Your task to perform on an android device: What's the weather? Image 0: 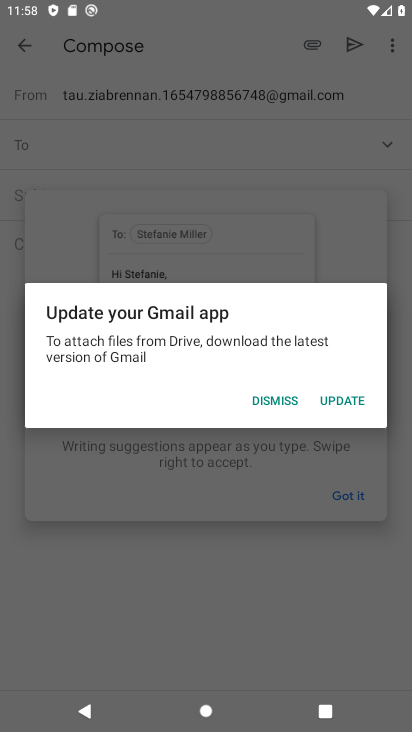
Step 0: press home button
Your task to perform on an android device: What's the weather? Image 1: 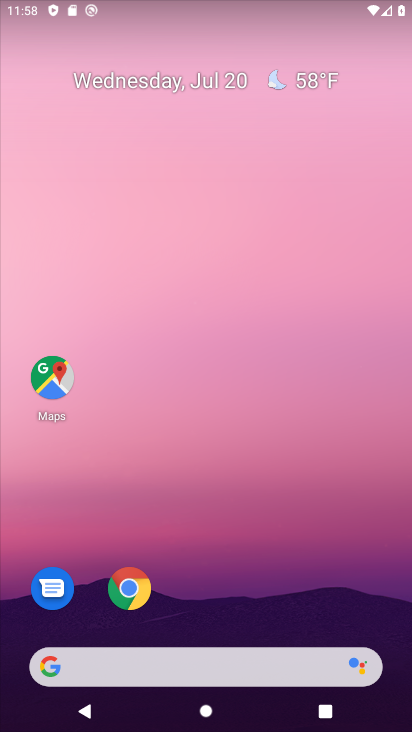
Step 1: click (138, 663)
Your task to perform on an android device: What's the weather? Image 2: 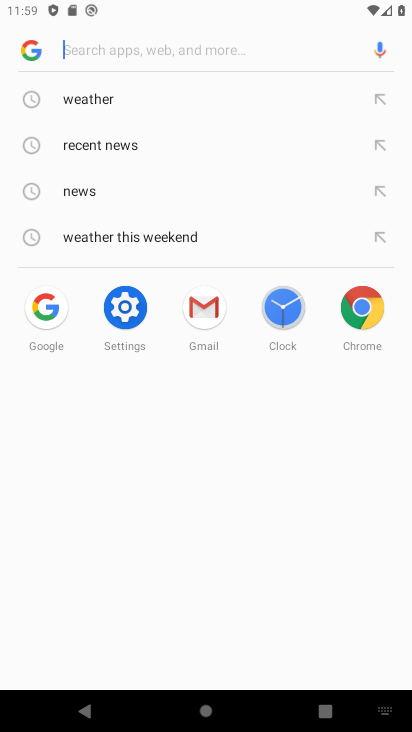
Step 2: type "what's the weather?"
Your task to perform on an android device: What's the weather? Image 3: 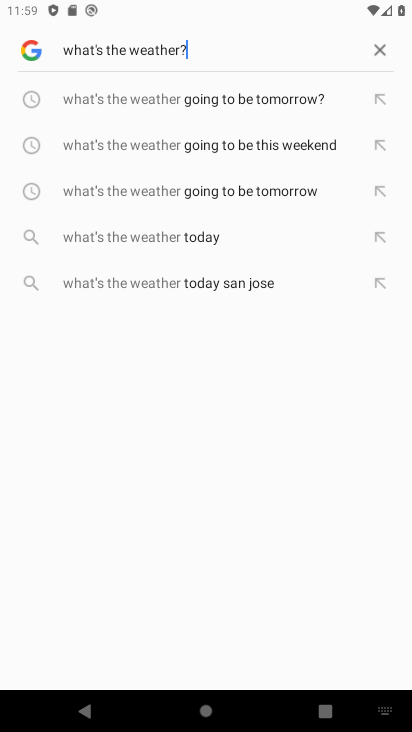
Step 3: click (174, 232)
Your task to perform on an android device: What's the weather? Image 4: 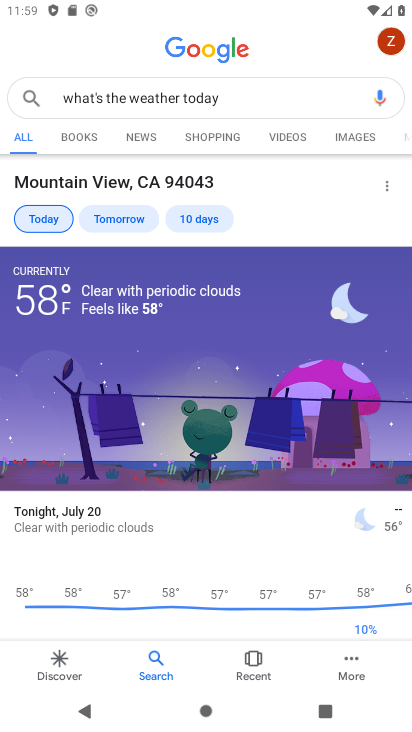
Step 4: task complete